Your task to perform on an android device: Open network settings Image 0: 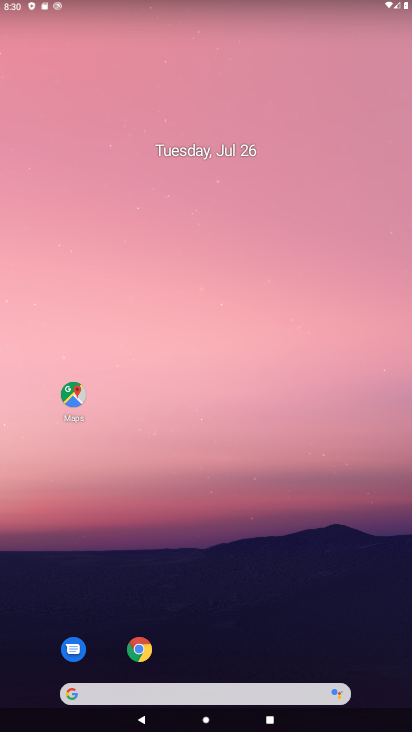
Step 0: drag from (191, 670) to (244, 178)
Your task to perform on an android device: Open network settings Image 1: 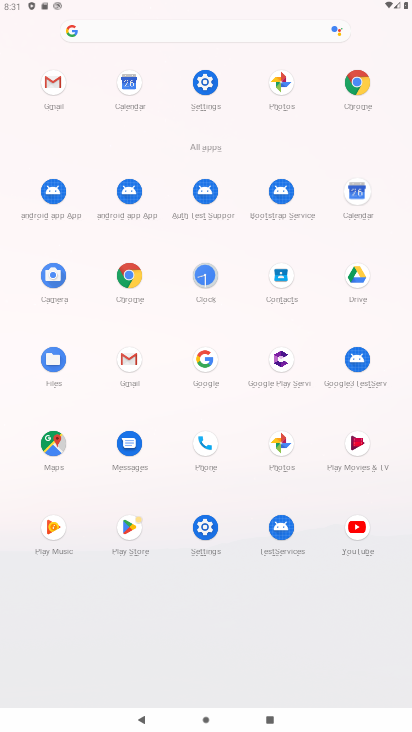
Step 1: click (209, 526)
Your task to perform on an android device: Open network settings Image 2: 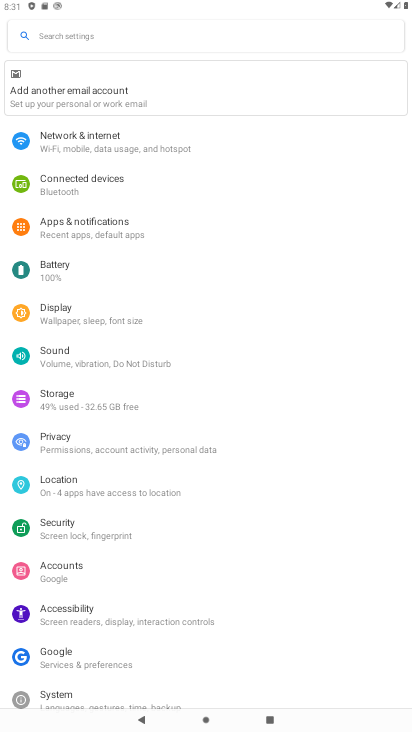
Step 2: click (137, 129)
Your task to perform on an android device: Open network settings Image 3: 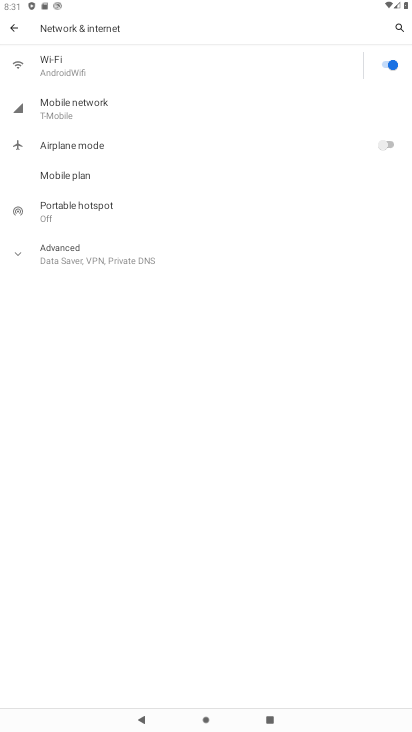
Step 3: task complete